Your task to perform on an android device: turn smart compose on in the gmail app Image 0: 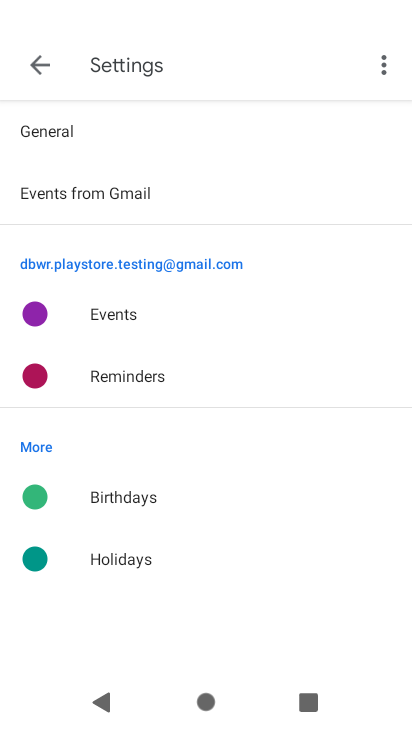
Step 0: press home button
Your task to perform on an android device: turn smart compose on in the gmail app Image 1: 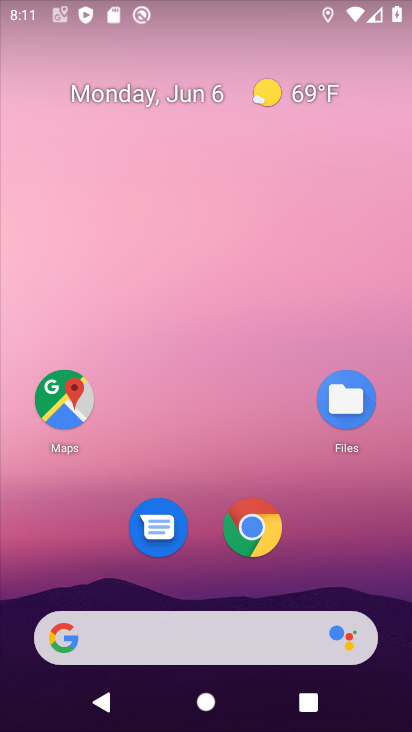
Step 1: drag from (204, 577) to (155, 79)
Your task to perform on an android device: turn smart compose on in the gmail app Image 2: 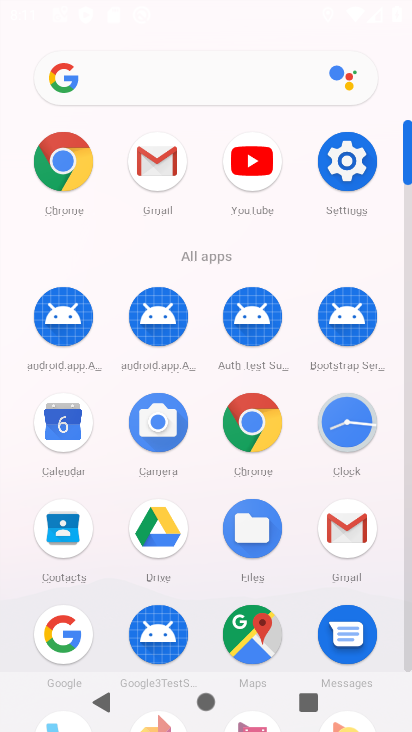
Step 2: click (153, 146)
Your task to perform on an android device: turn smart compose on in the gmail app Image 3: 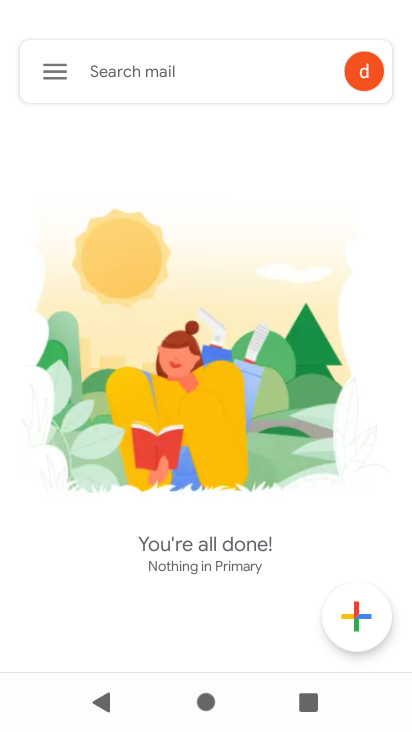
Step 3: click (49, 84)
Your task to perform on an android device: turn smart compose on in the gmail app Image 4: 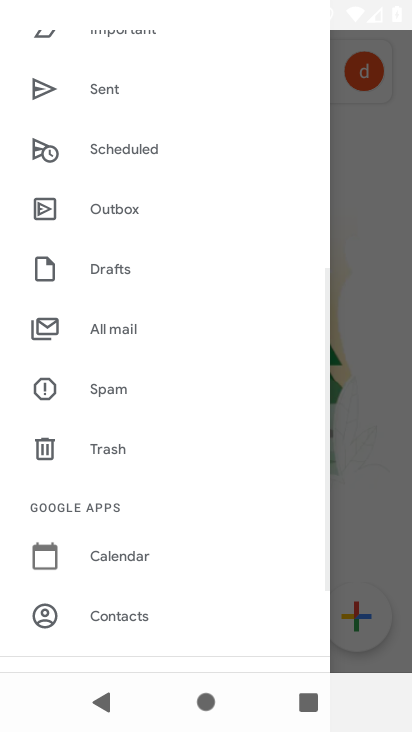
Step 4: drag from (146, 611) to (132, 330)
Your task to perform on an android device: turn smart compose on in the gmail app Image 5: 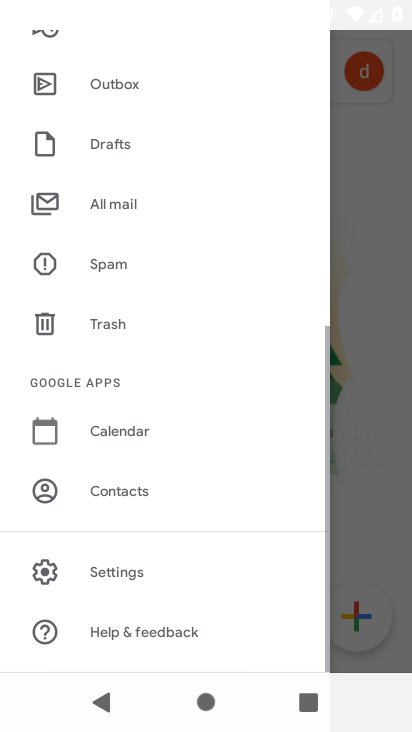
Step 5: click (185, 583)
Your task to perform on an android device: turn smart compose on in the gmail app Image 6: 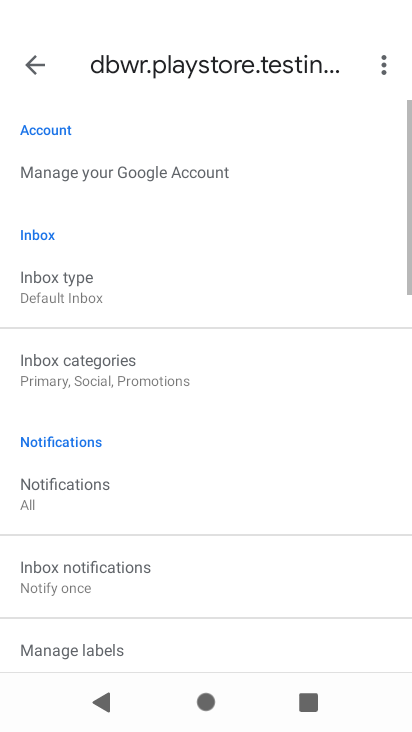
Step 6: task complete